Your task to perform on an android device: turn off location history Image 0: 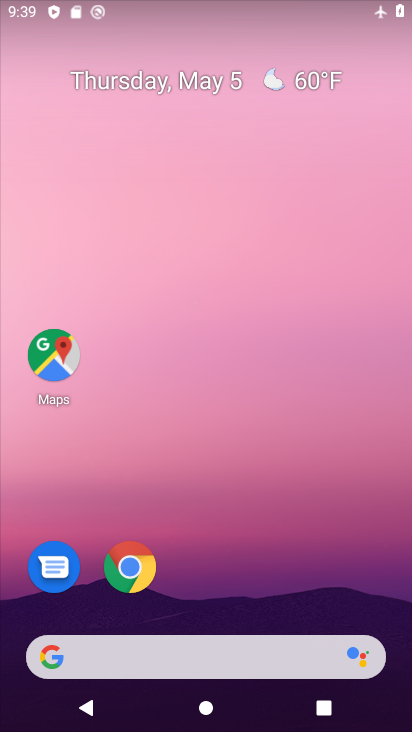
Step 0: drag from (219, 581) to (209, 8)
Your task to perform on an android device: turn off location history Image 1: 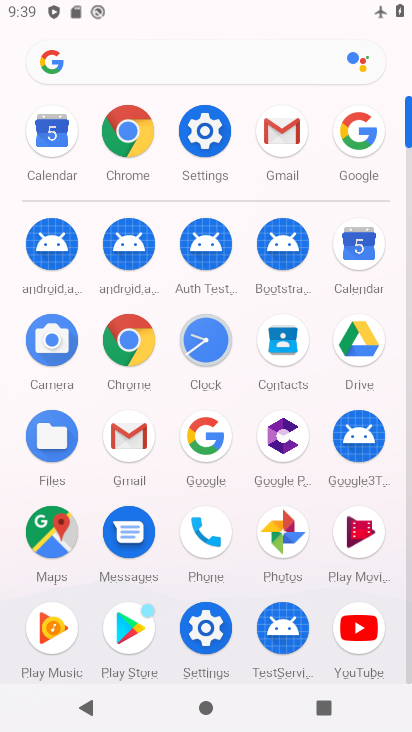
Step 1: click (188, 151)
Your task to perform on an android device: turn off location history Image 2: 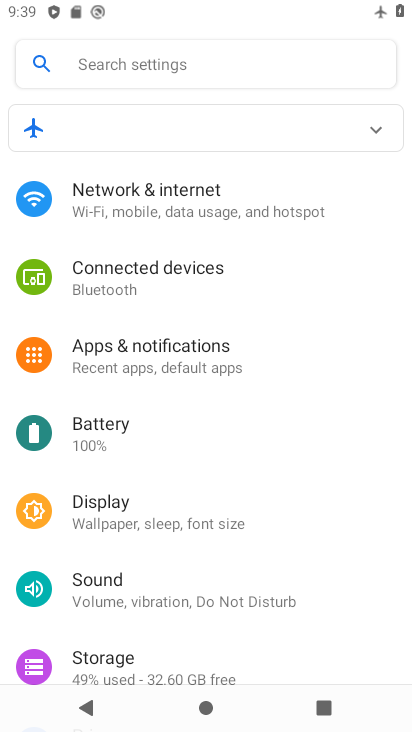
Step 2: drag from (178, 603) to (190, 314)
Your task to perform on an android device: turn off location history Image 3: 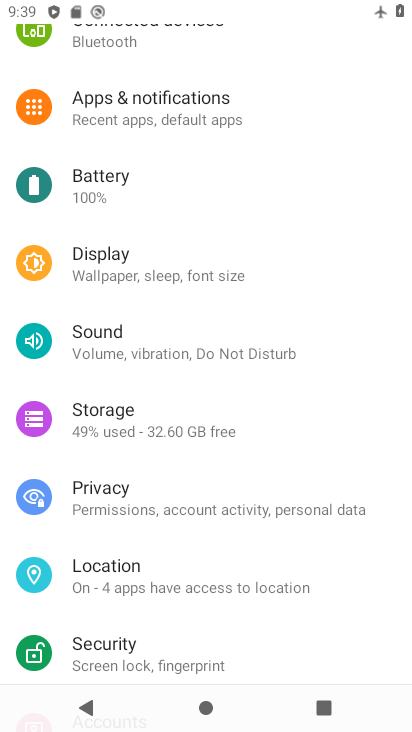
Step 3: click (159, 560)
Your task to perform on an android device: turn off location history Image 4: 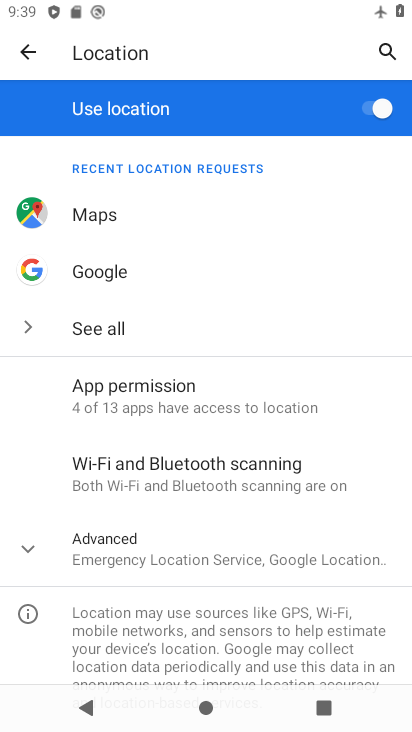
Step 4: click (184, 554)
Your task to perform on an android device: turn off location history Image 5: 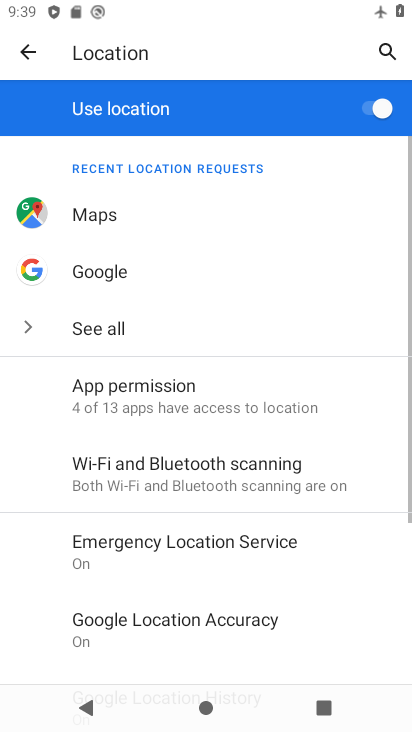
Step 5: drag from (260, 607) to (270, 370)
Your task to perform on an android device: turn off location history Image 6: 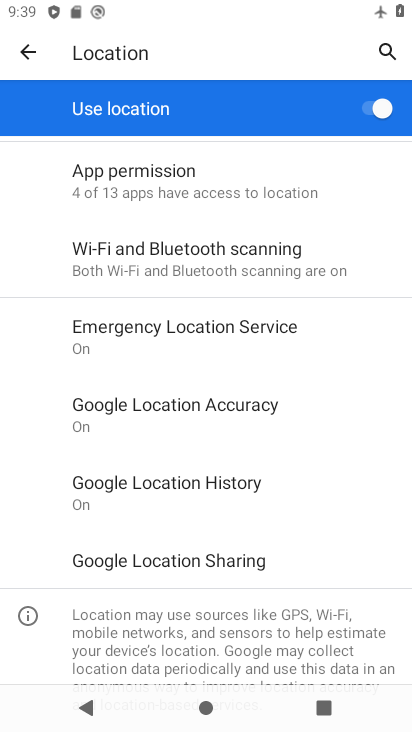
Step 6: click (225, 497)
Your task to perform on an android device: turn off location history Image 7: 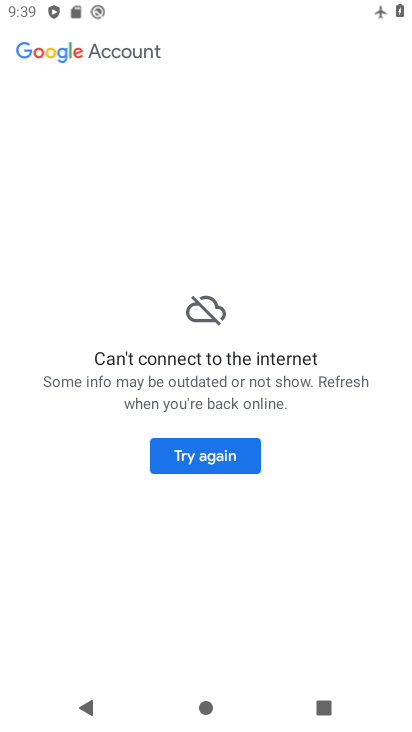
Step 7: click (211, 453)
Your task to perform on an android device: turn off location history Image 8: 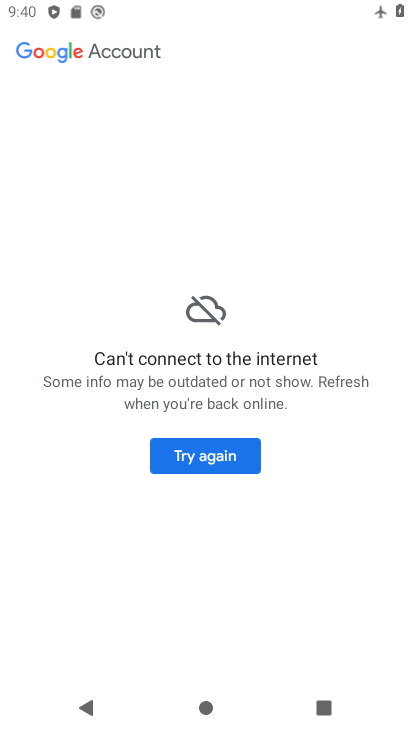
Step 8: task complete